Your task to perform on an android device: turn off sleep mode Image 0: 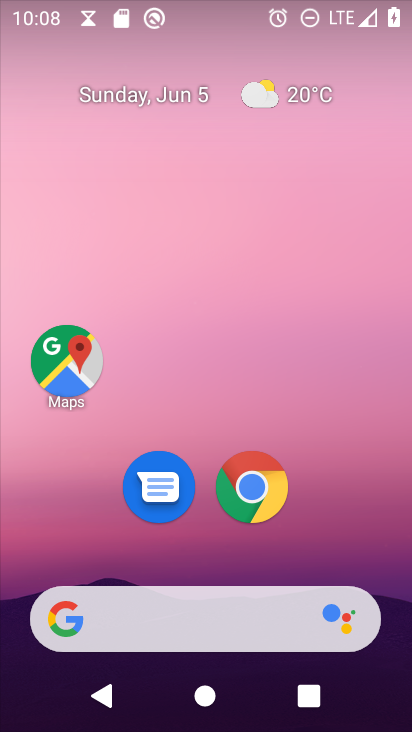
Step 0: drag from (302, 517) to (324, 196)
Your task to perform on an android device: turn off sleep mode Image 1: 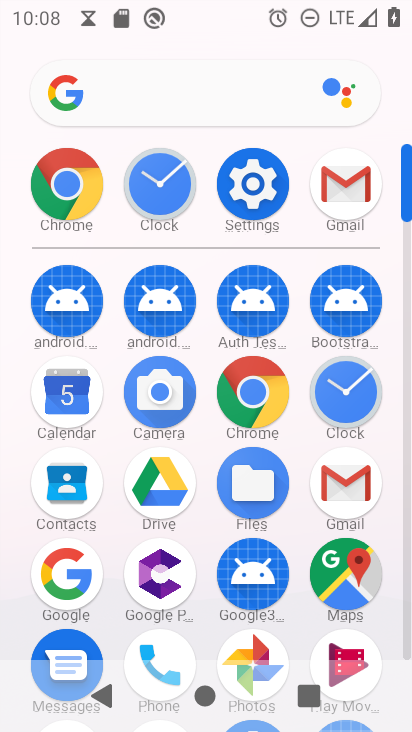
Step 1: click (249, 182)
Your task to perform on an android device: turn off sleep mode Image 2: 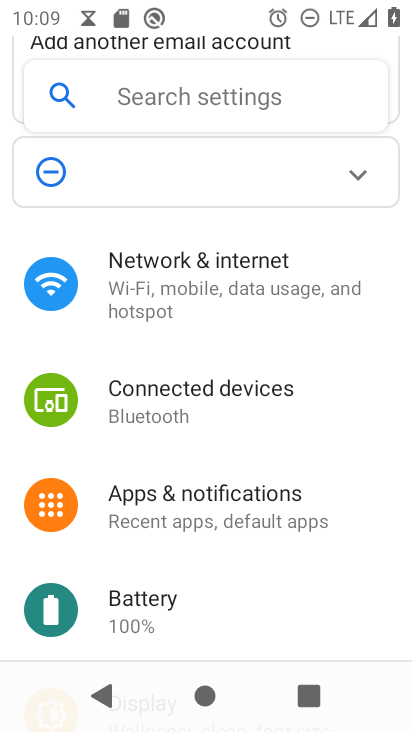
Step 2: task complete